Your task to perform on an android device: check data usage Image 0: 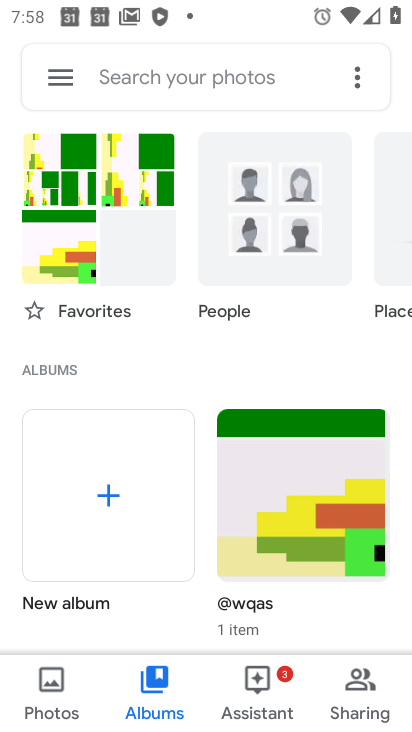
Step 0: press home button
Your task to perform on an android device: check data usage Image 1: 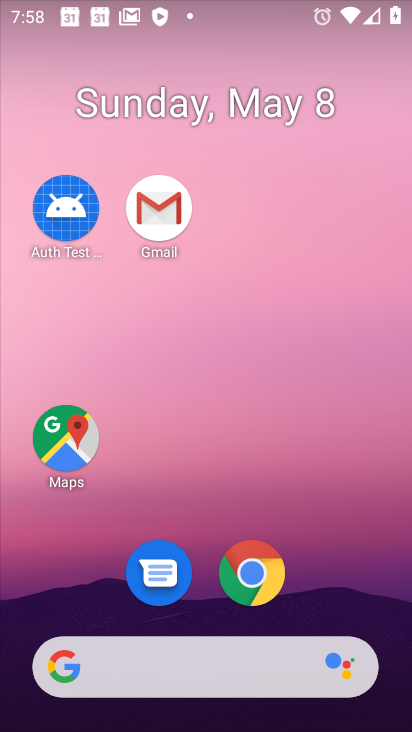
Step 1: drag from (303, 620) to (87, 24)
Your task to perform on an android device: check data usage Image 2: 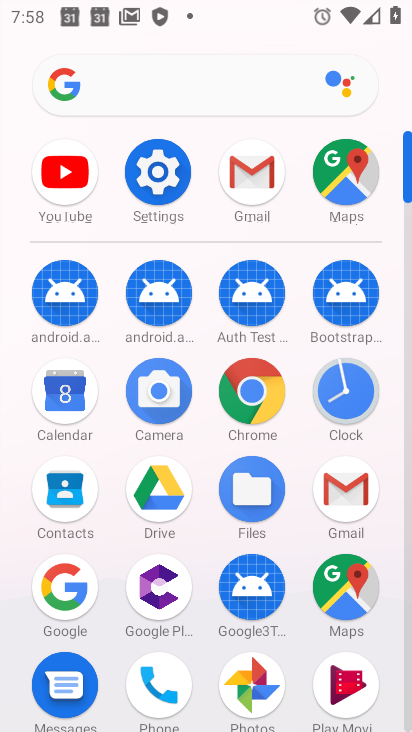
Step 2: click (150, 169)
Your task to perform on an android device: check data usage Image 3: 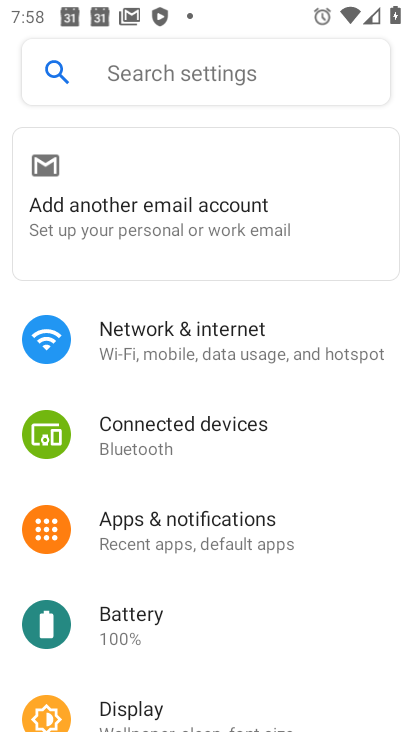
Step 3: click (169, 350)
Your task to perform on an android device: check data usage Image 4: 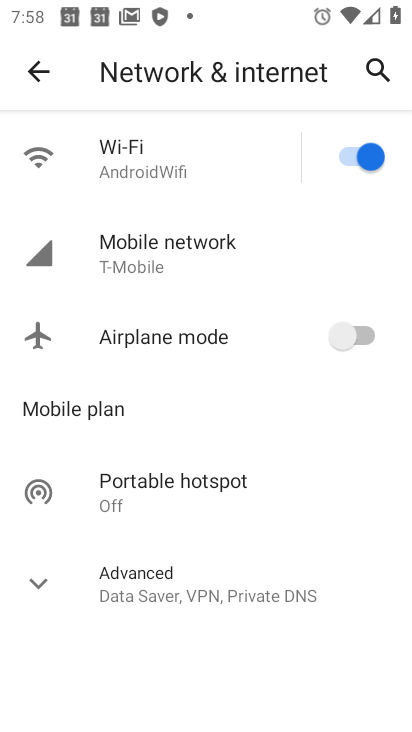
Step 4: task complete